Your task to perform on an android device: Show me the alarms in the clock app Image 0: 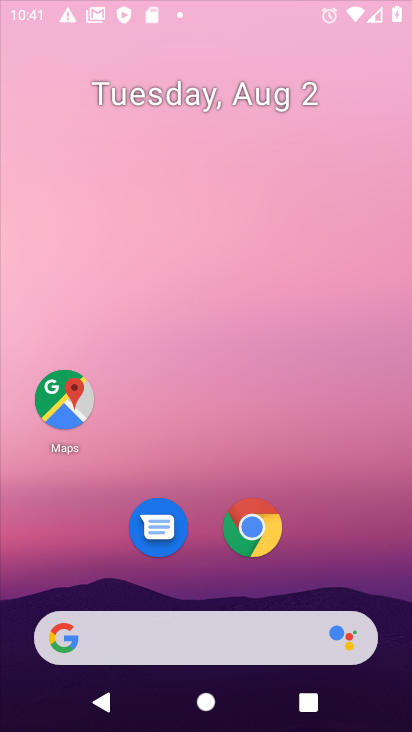
Step 0: press home button
Your task to perform on an android device: Show me the alarms in the clock app Image 1: 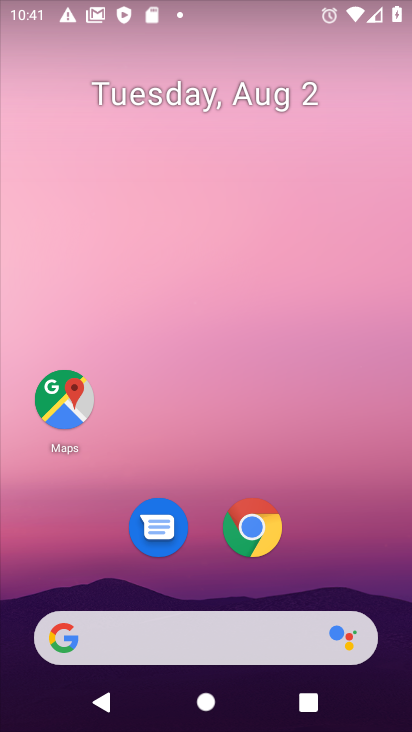
Step 1: drag from (210, 582) to (236, 11)
Your task to perform on an android device: Show me the alarms in the clock app Image 2: 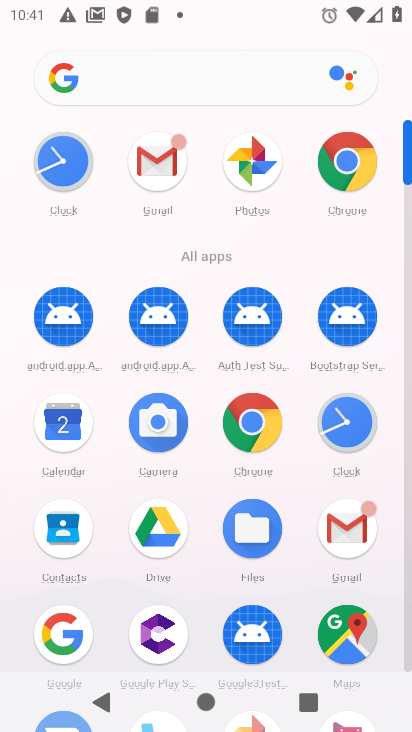
Step 2: click (52, 149)
Your task to perform on an android device: Show me the alarms in the clock app Image 3: 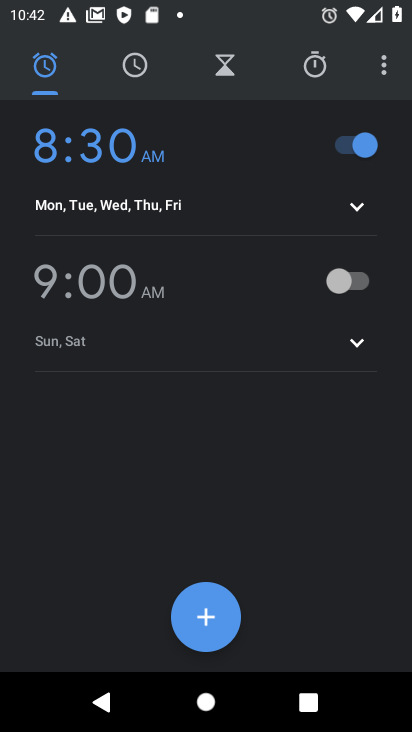
Step 3: click (346, 282)
Your task to perform on an android device: Show me the alarms in the clock app Image 4: 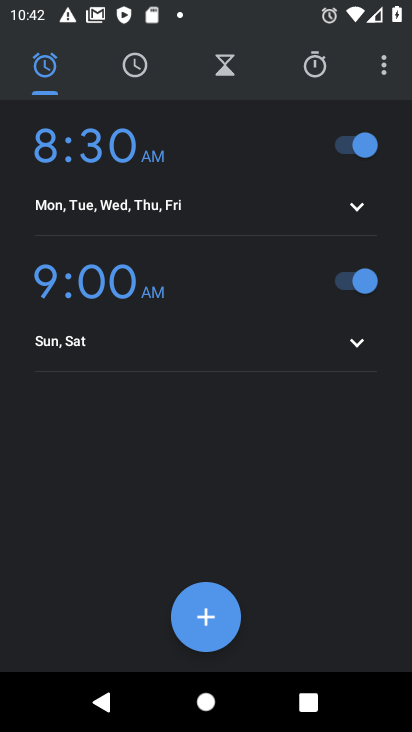
Step 4: task complete